Your task to perform on an android device: Search for seafood restaurants on Google Maps Image 0: 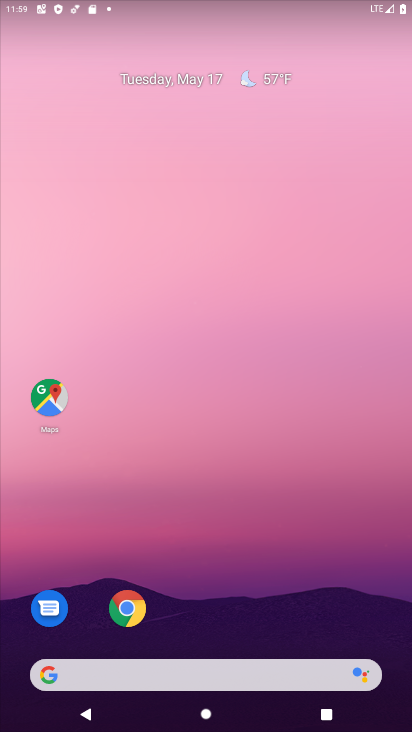
Step 0: click (46, 405)
Your task to perform on an android device: Search for seafood restaurants on Google Maps Image 1: 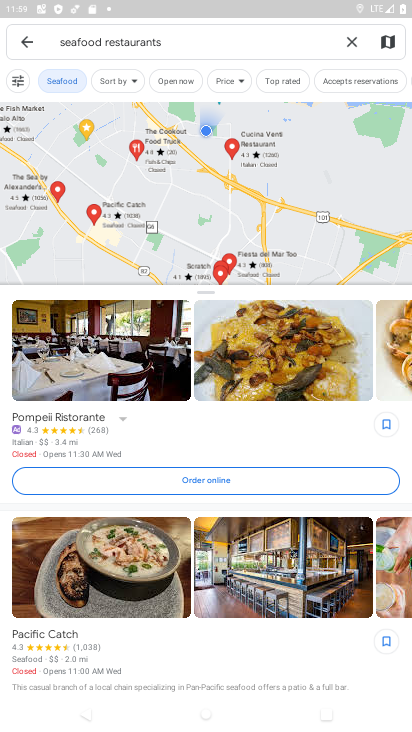
Step 1: task complete